Your task to perform on an android device: toggle show notifications on the lock screen Image 0: 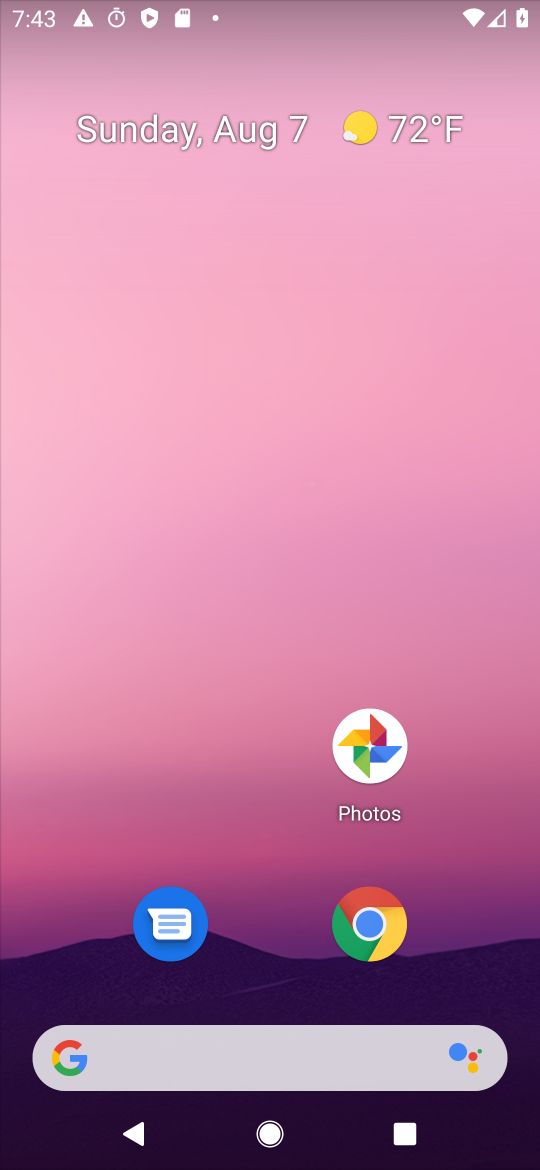
Step 0: press home button
Your task to perform on an android device: toggle show notifications on the lock screen Image 1: 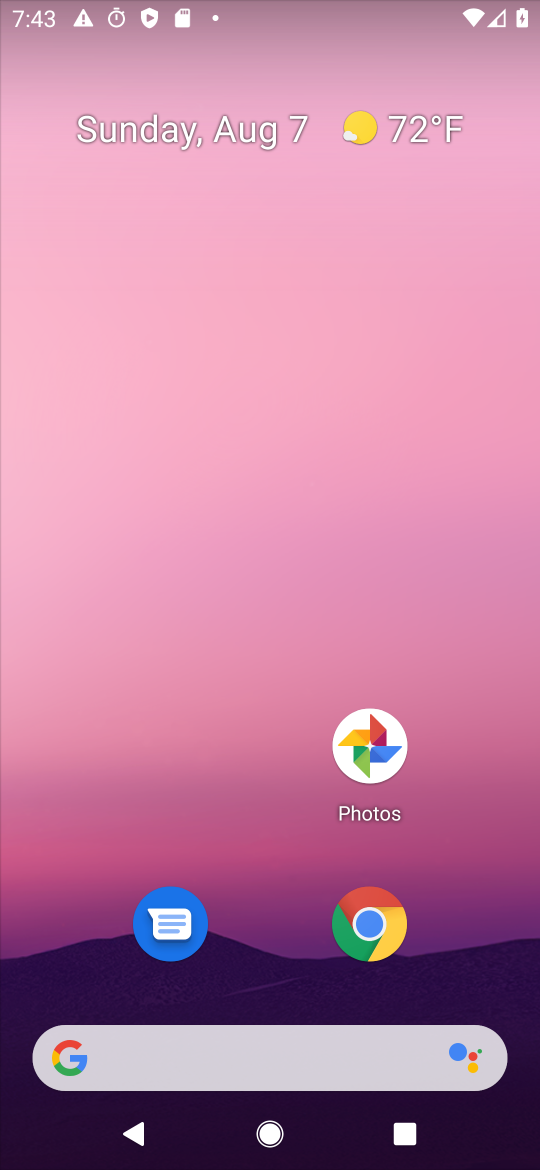
Step 1: drag from (385, 1036) to (213, 288)
Your task to perform on an android device: toggle show notifications on the lock screen Image 2: 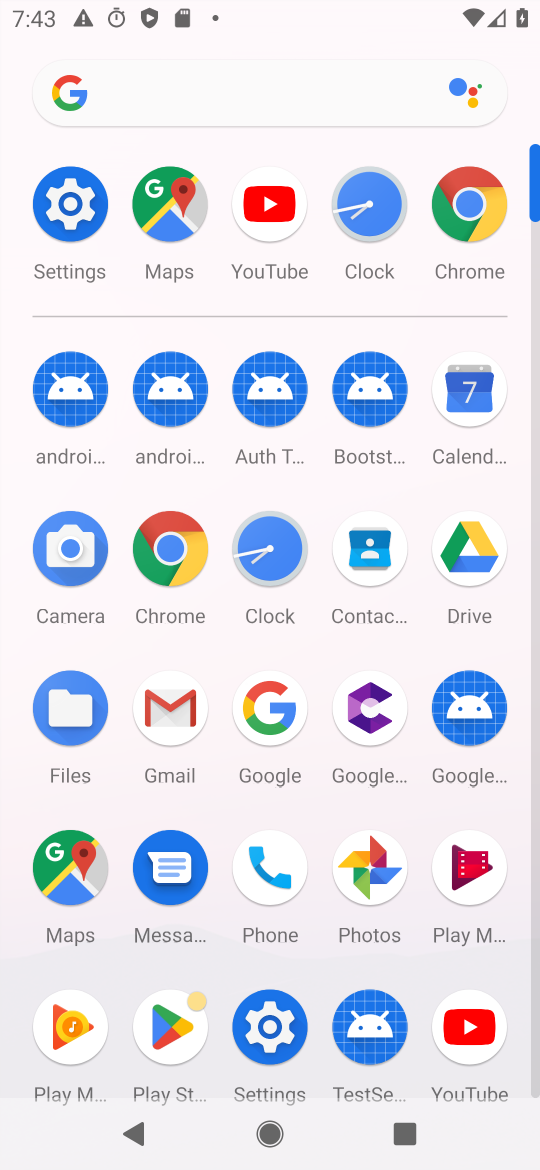
Step 2: click (75, 226)
Your task to perform on an android device: toggle show notifications on the lock screen Image 3: 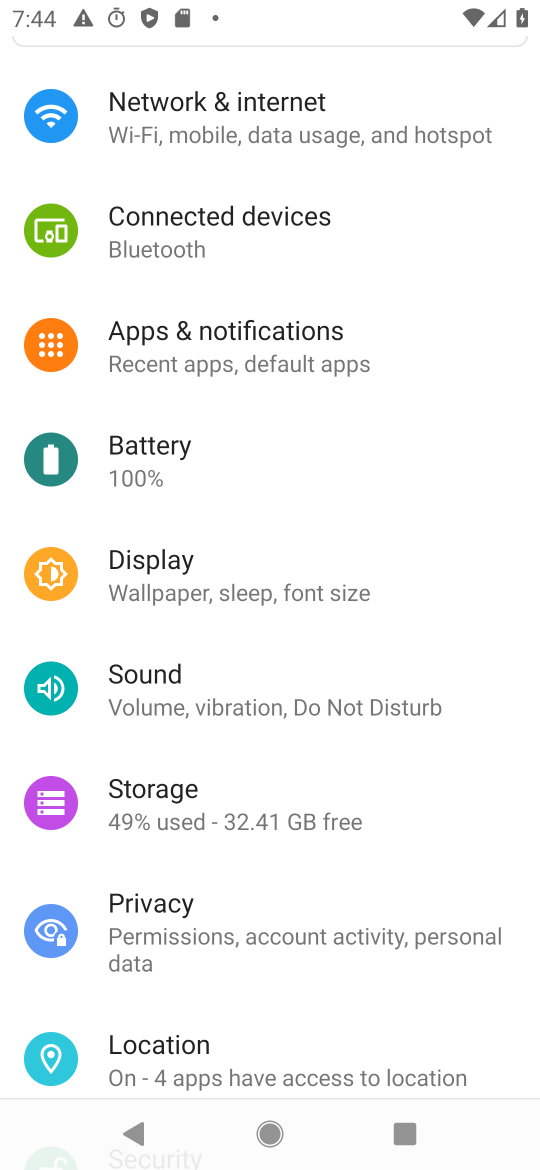
Step 3: drag from (187, 217) to (299, 480)
Your task to perform on an android device: toggle show notifications on the lock screen Image 4: 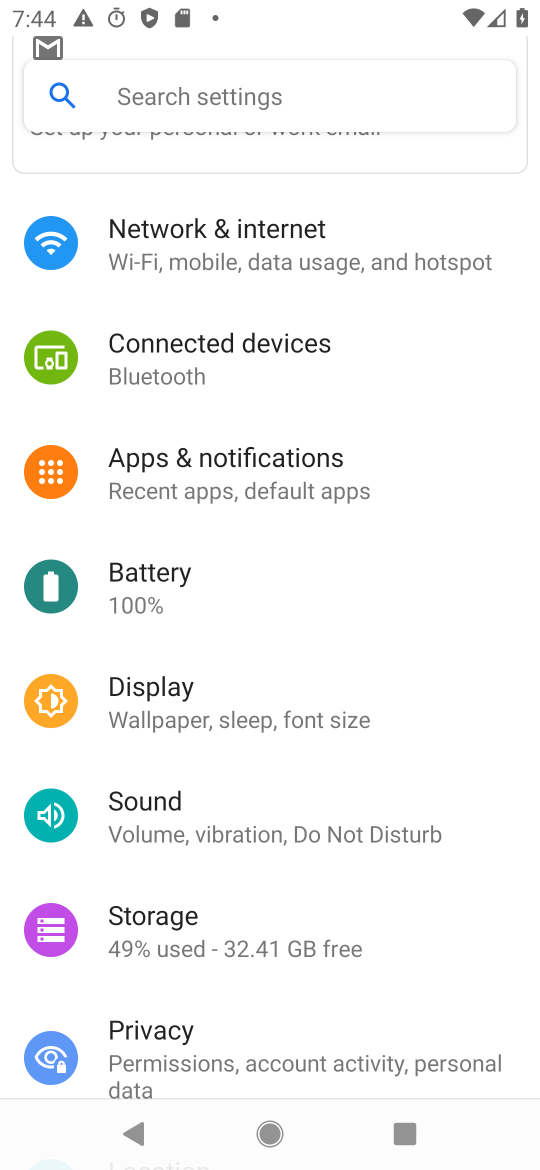
Step 4: click (197, 85)
Your task to perform on an android device: toggle show notifications on the lock screen Image 5: 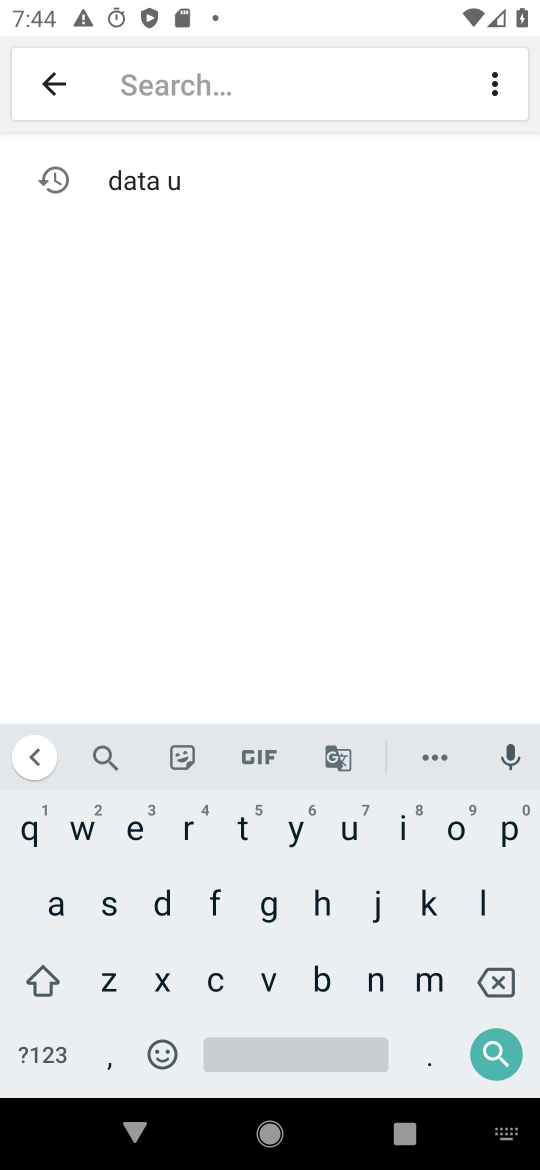
Step 5: click (366, 977)
Your task to perform on an android device: toggle show notifications on the lock screen Image 6: 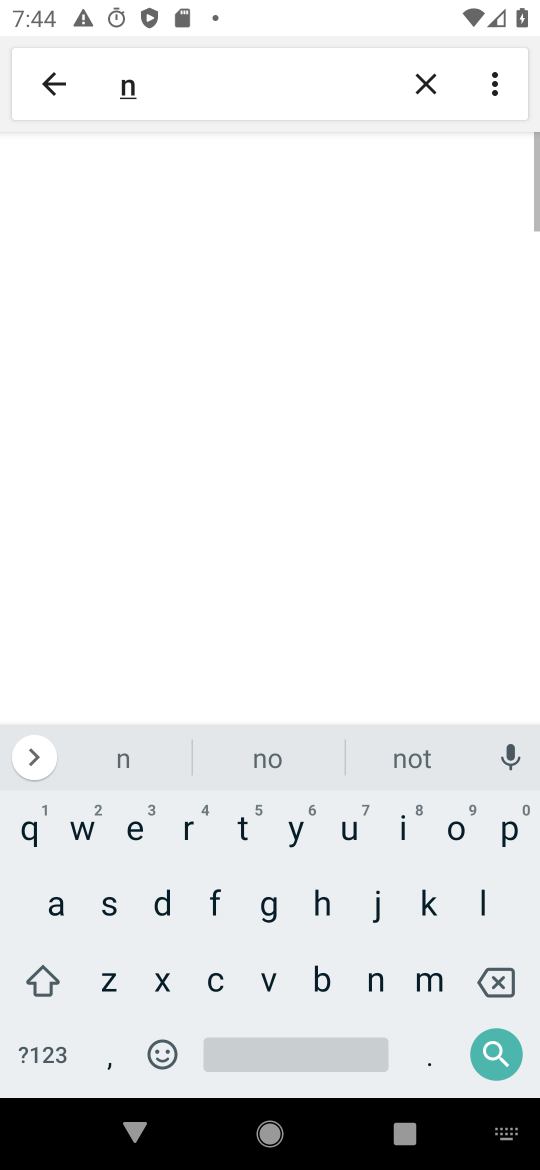
Step 6: click (449, 827)
Your task to perform on an android device: toggle show notifications on the lock screen Image 7: 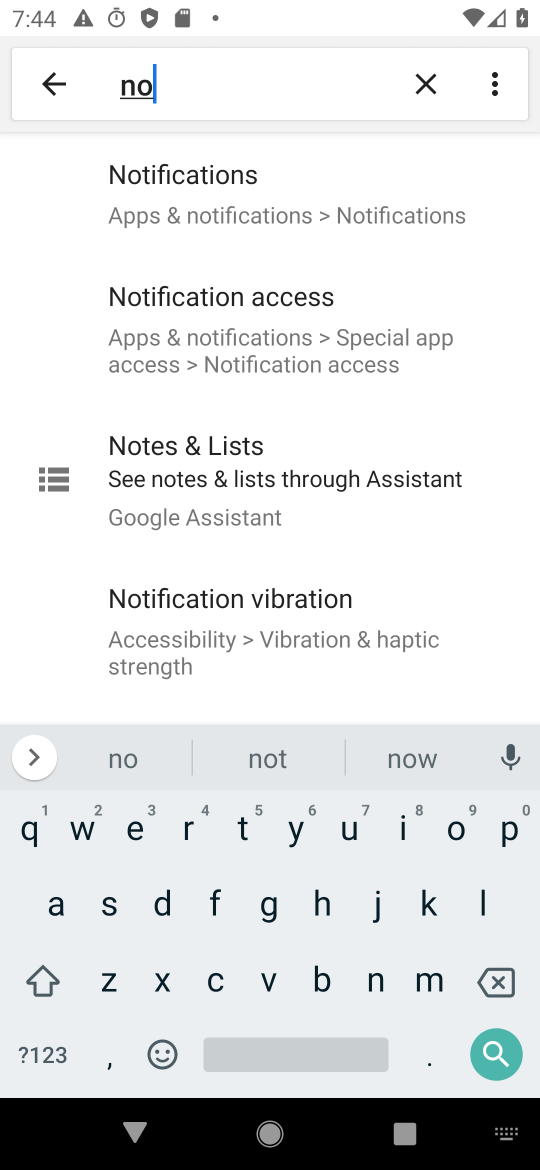
Step 7: click (226, 197)
Your task to perform on an android device: toggle show notifications on the lock screen Image 8: 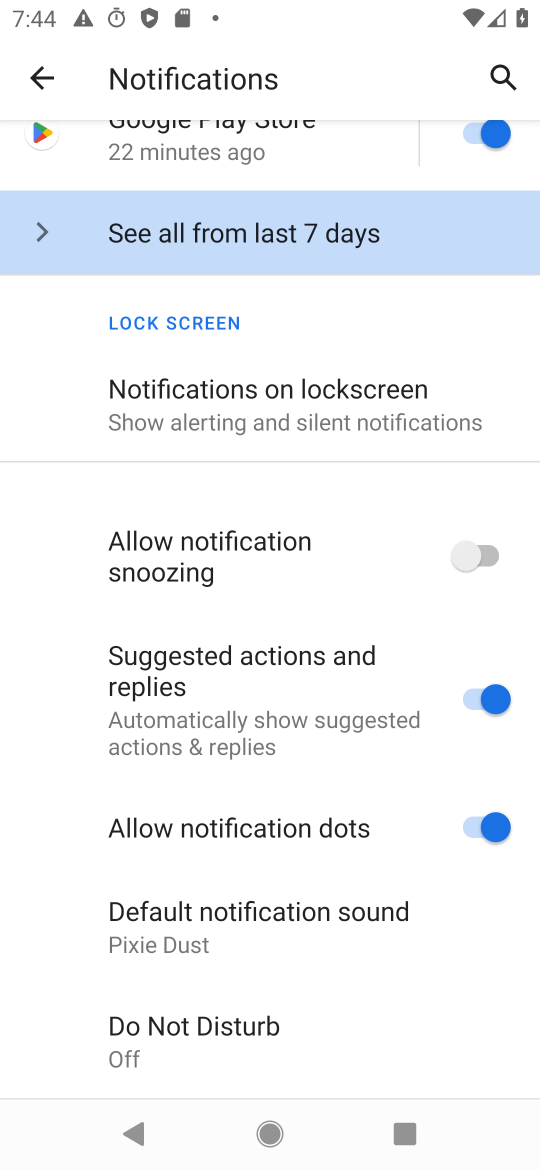
Step 8: click (201, 418)
Your task to perform on an android device: toggle show notifications on the lock screen Image 9: 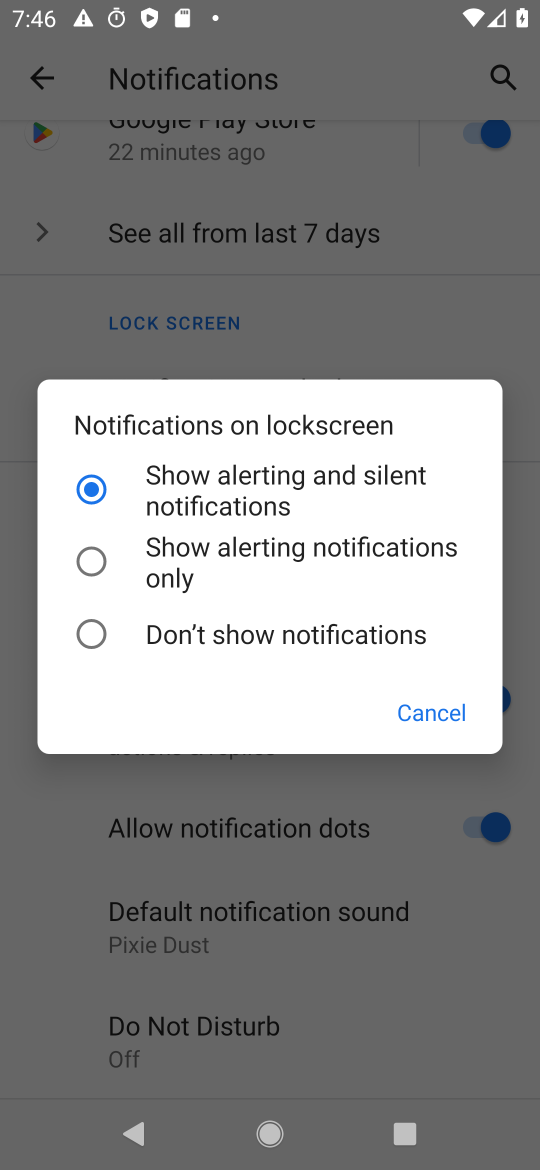
Step 9: task complete